Your task to perform on an android device: turn vacation reply on in the gmail app Image 0: 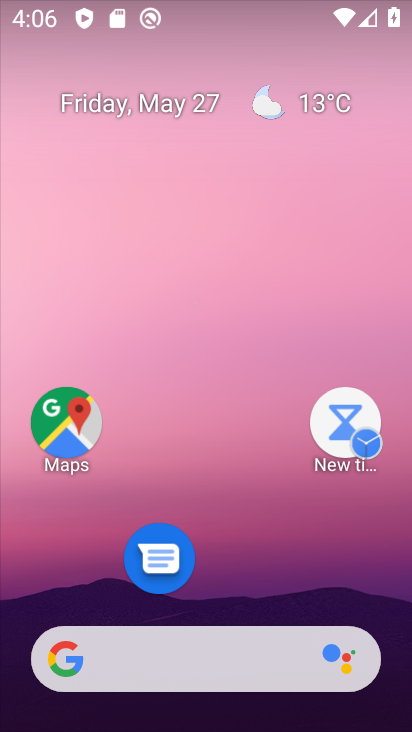
Step 0: drag from (108, 273) to (96, 188)
Your task to perform on an android device: turn vacation reply on in the gmail app Image 1: 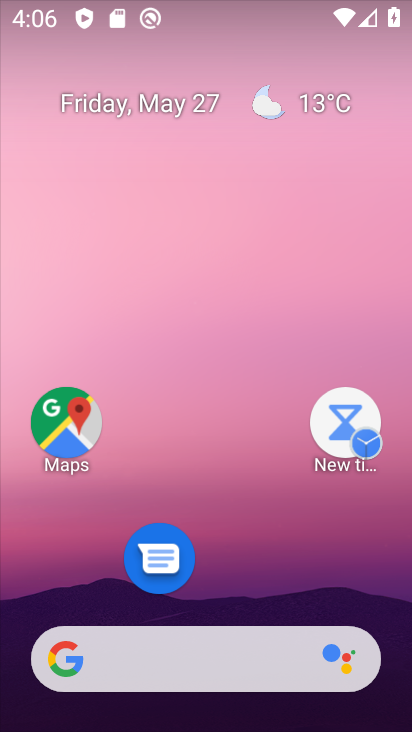
Step 1: drag from (240, 694) to (132, 134)
Your task to perform on an android device: turn vacation reply on in the gmail app Image 2: 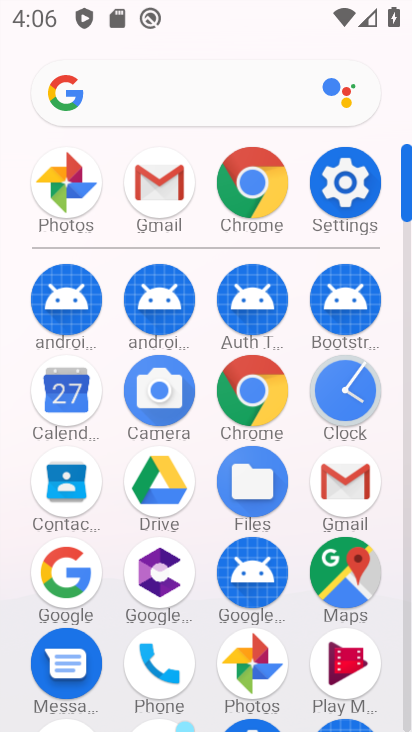
Step 2: drag from (219, 489) to (172, 185)
Your task to perform on an android device: turn vacation reply on in the gmail app Image 3: 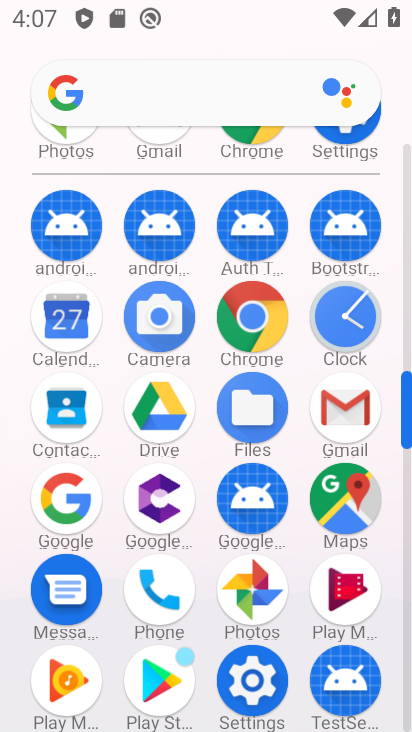
Step 3: click (158, 202)
Your task to perform on an android device: turn vacation reply on in the gmail app Image 4: 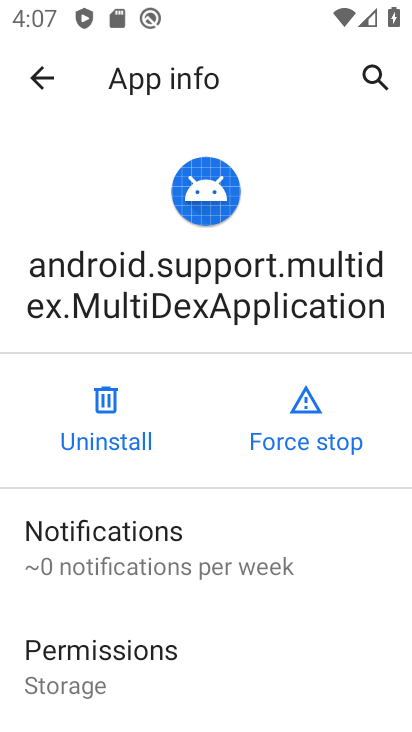
Step 4: drag from (160, 560) to (160, 140)
Your task to perform on an android device: turn vacation reply on in the gmail app Image 5: 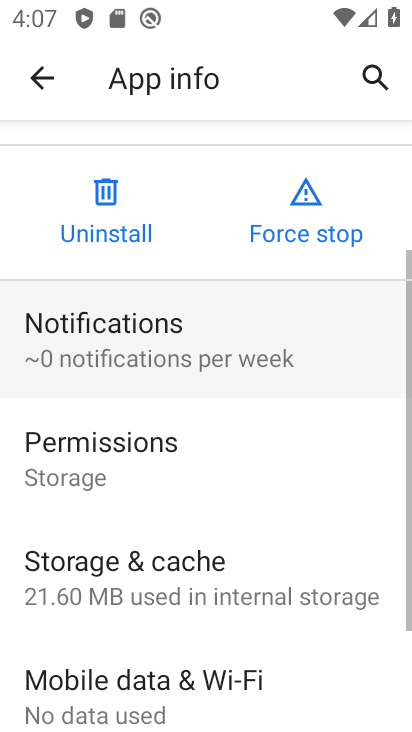
Step 5: drag from (175, 465) to (136, 149)
Your task to perform on an android device: turn vacation reply on in the gmail app Image 6: 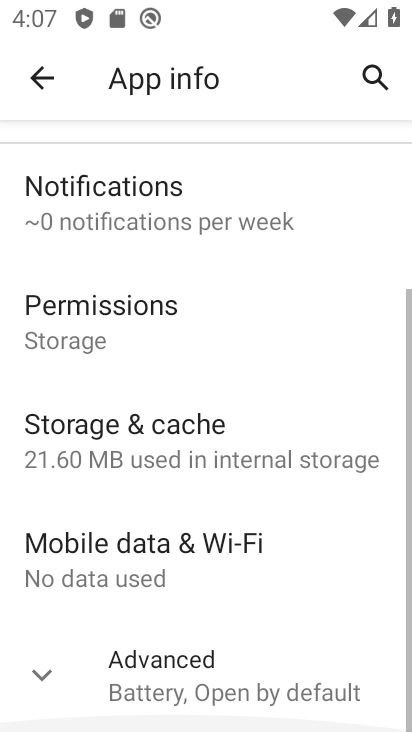
Step 6: drag from (152, 471) to (144, 122)
Your task to perform on an android device: turn vacation reply on in the gmail app Image 7: 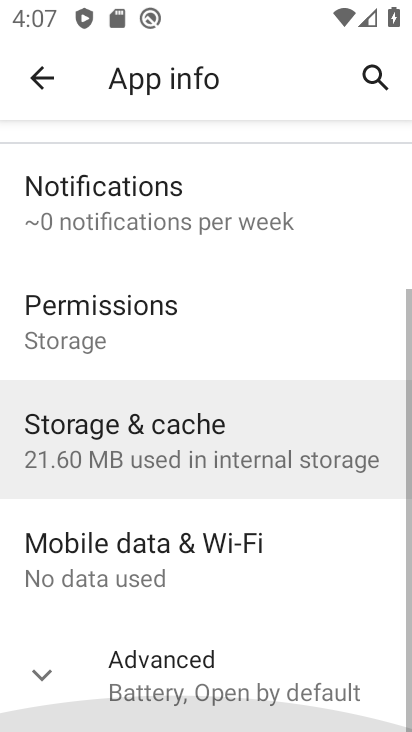
Step 7: drag from (213, 448) to (193, 86)
Your task to perform on an android device: turn vacation reply on in the gmail app Image 8: 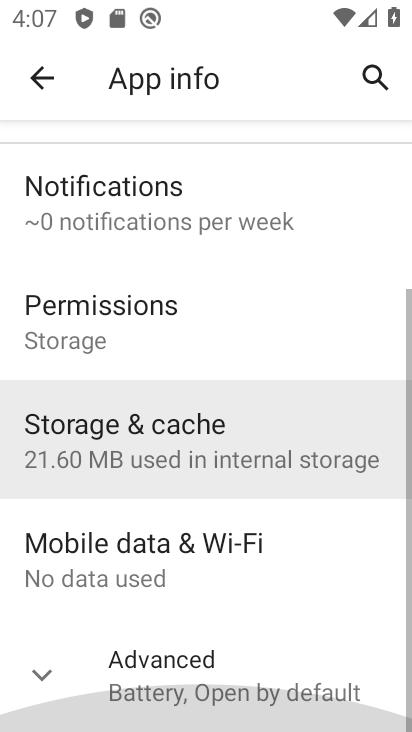
Step 8: drag from (143, 502) to (158, 250)
Your task to perform on an android device: turn vacation reply on in the gmail app Image 9: 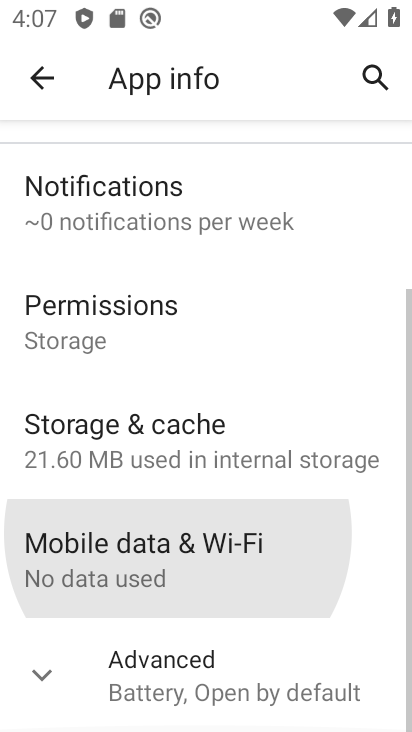
Step 9: drag from (163, 409) to (168, 69)
Your task to perform on an android device: turn vacation reply on in the gmail app Image 10: 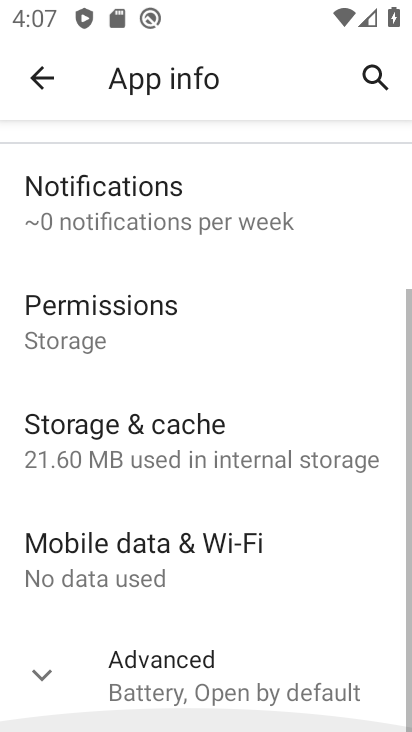
Step 10: drag from (157, 447) to (131, 21)
Your task to perform on an android device: turn vacation reply on in the gmail app Image 11: 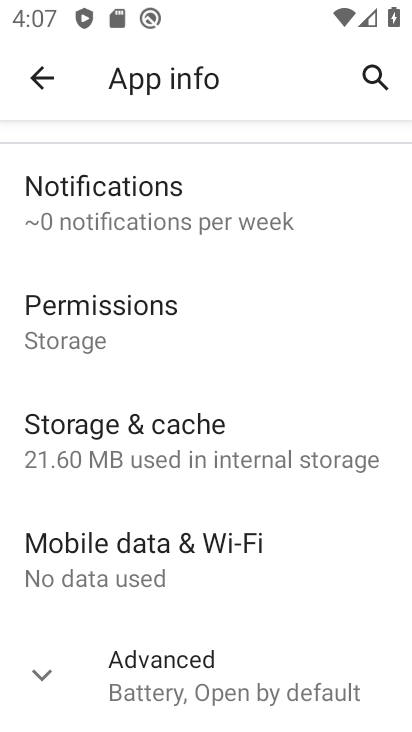
Step 11: drag from (126, 260) to (114, 140)
Your task to perform on an android device: turn vacation reply on in the gmail app Image 12: 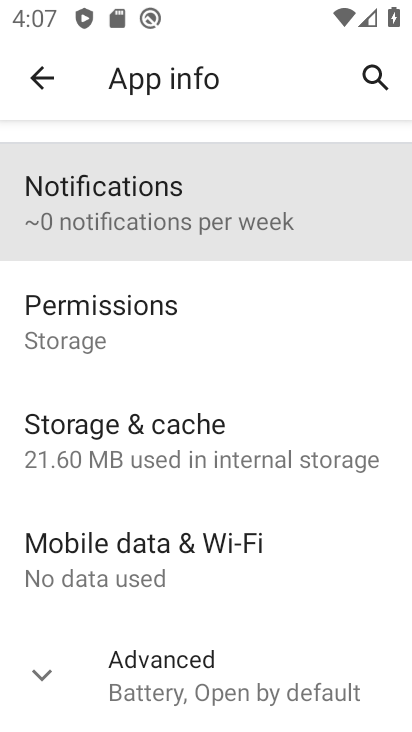
Step 12: drag from (166, 405) to (194, 20)
Your task to perform on an android device: turn vacation reply on in the gmail app Image 13: 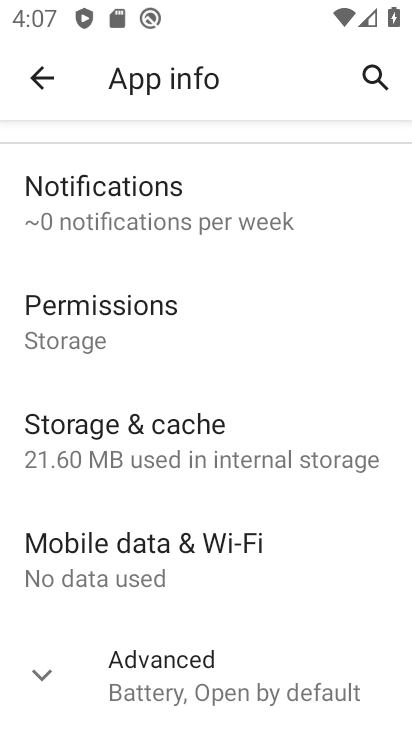
Step 13: drag from (250, 382) to (191, 30)
Your task to perform on an android device: turn vacation reply on in the gmail app Image 14: 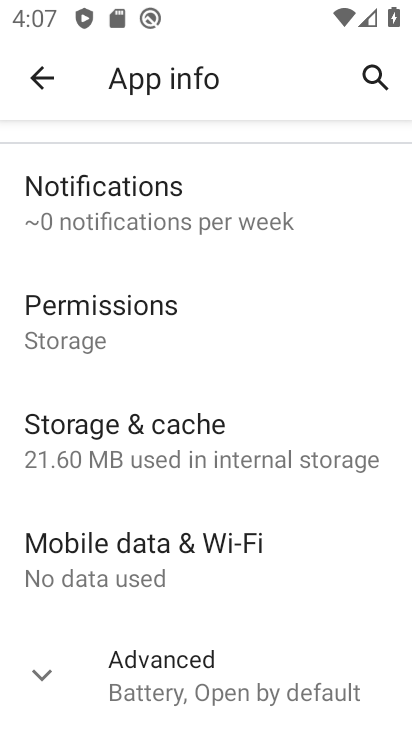
Step 14: drag from (142, 278) to (142, 86)
Your task to perform on an android device: turn vacation reply on in the gmail app Image 15: 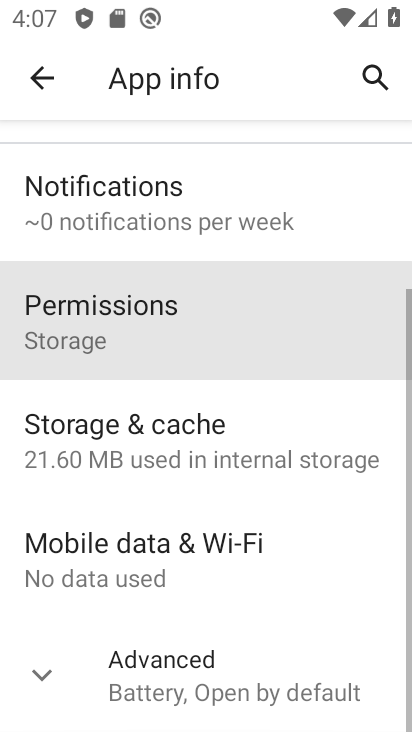
Step 15: drag from (173, 459) to (127, 157)
Your task to perform on an android device: turn vacation reply on in the gmail app Image 16: 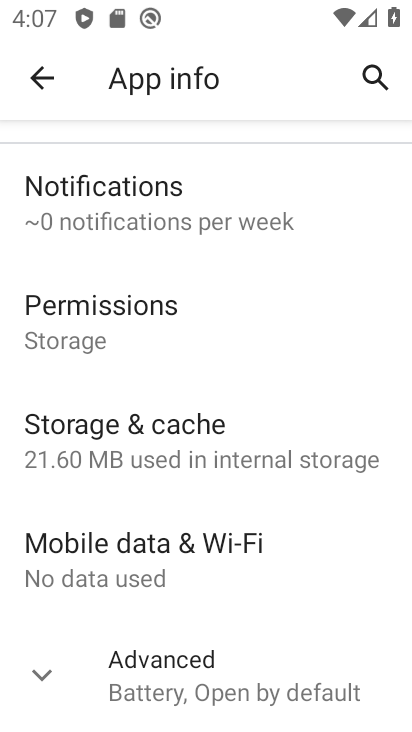
Step 16: press back button
Your task to perform on an android device: turn vacation reply on in the gmail app Image 17: 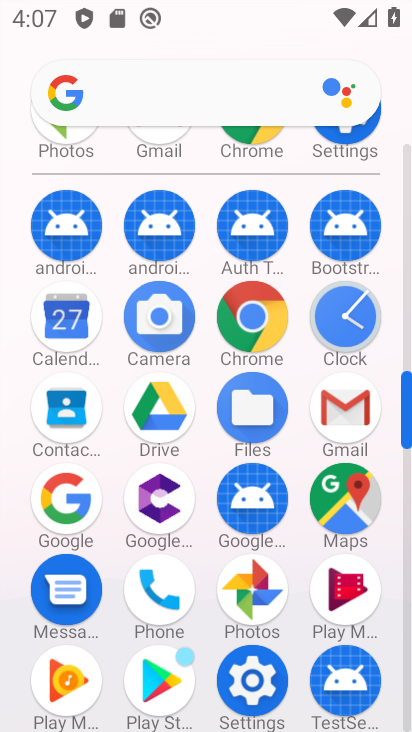
Step 17: click (344, 413)
Your task to perform on an android device: turn vacation reply on in the gmail app Image 18: 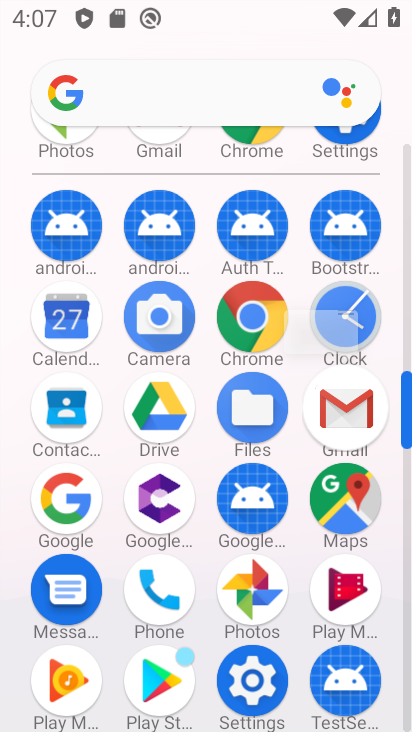
Step 18: click (344, 413)
Your task to perform on an android device: turn vacation reply on in the gmail app Image 19: 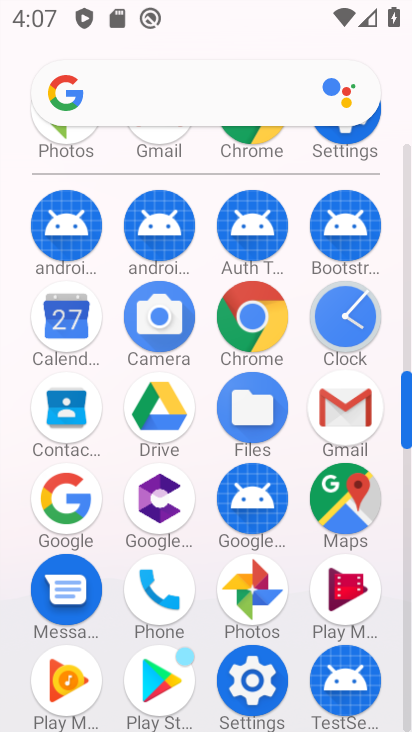
Step 19: click (344, 413)
Your task to perform on an android device: turn vacation reply on in the gmail app Image 20: 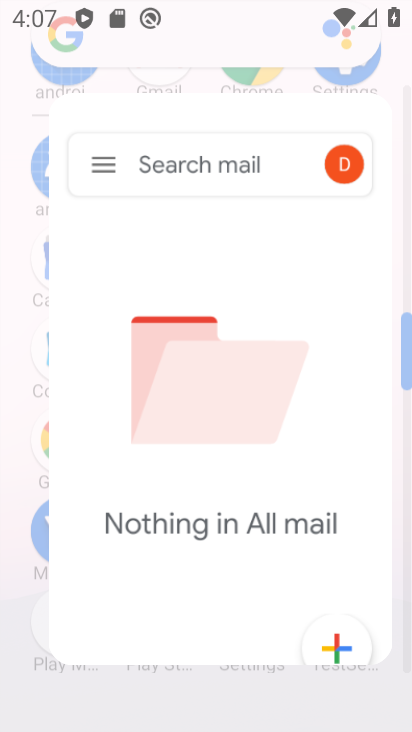
Step 20: click (344, 413)
Your task to perform on an android device: turn vacation reply on in the gmail app Image 21: 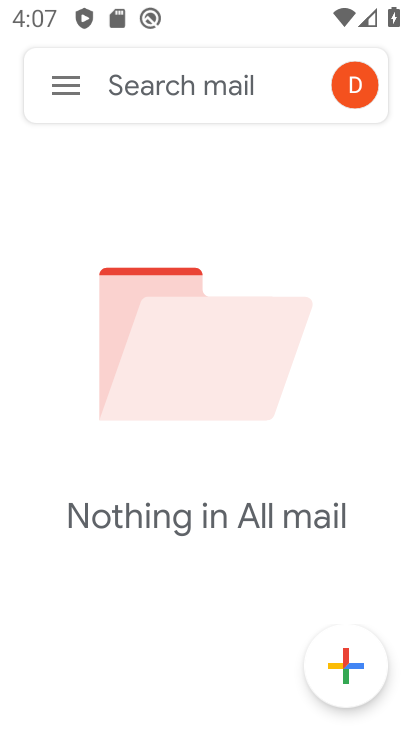
Step 21: click (73, 87)
Your task to perform on an android device: turn vacation reply on in the gmail app Image 22: 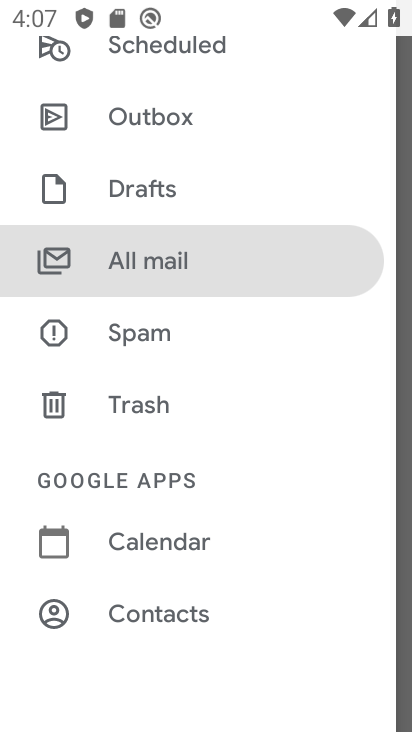
Step 22: drag from (160, 430) to (111, 159)
Your task to perform on an android device: turn vacation reply on in the gmail app Image 23: 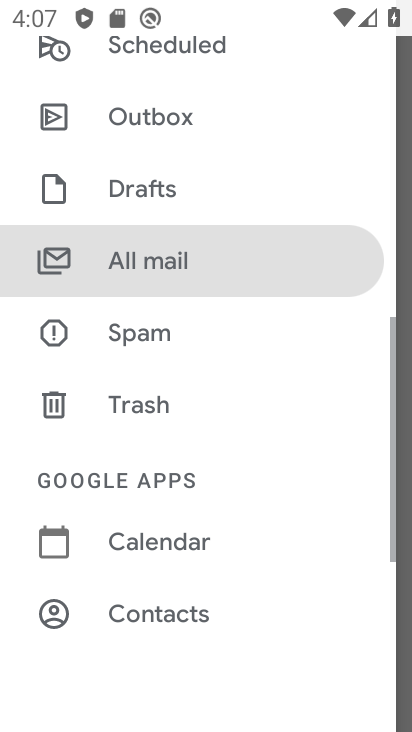
Step 23: drag from (184, 532) to (174, 80)
Your task to perform on an android device: turn vacation reply on in the gmail app Image 24: 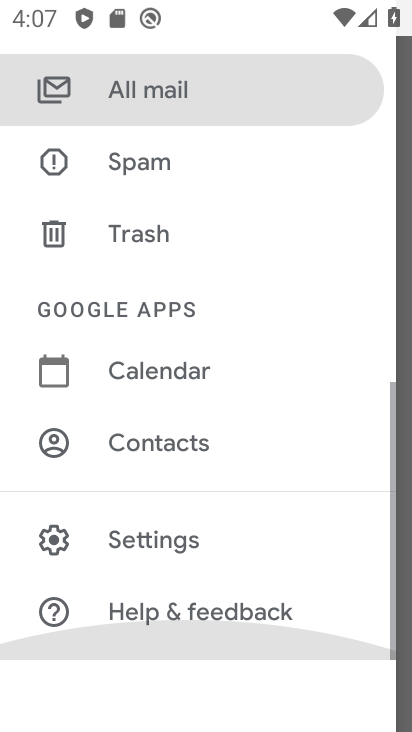
Step 24: drag from (153, 425) to (203, 153)
Your task to perform on an android device: turn vacation reply on in the gmail app Image 25: 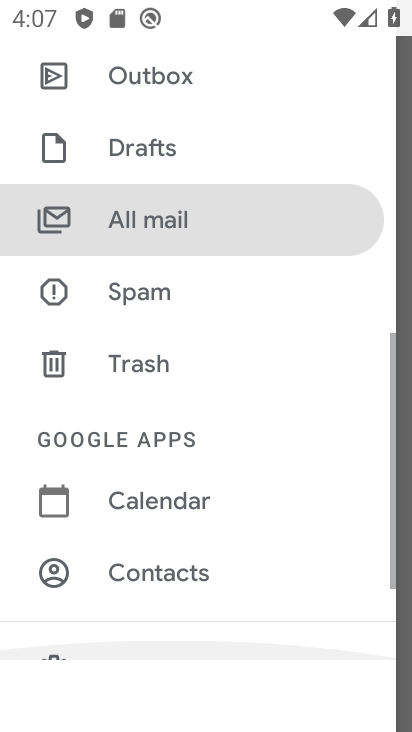
Step 25: drag from (185, 545) to (170, 227)
Your task to perform on an android device: turn vacation reply on in the gmail app Image 26: 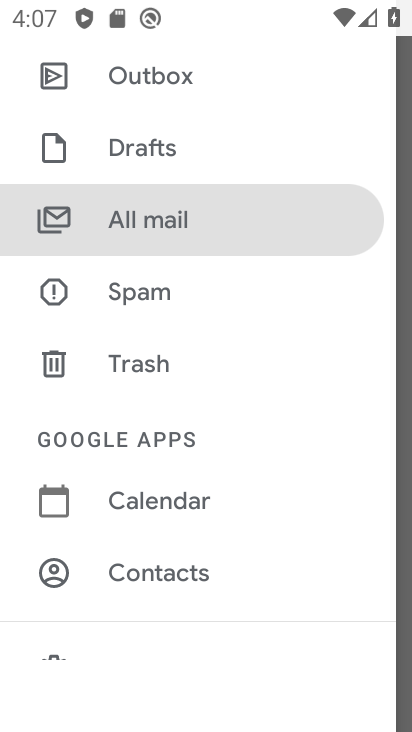
Step 26: drag from (171, 516) to (182, 108)
Your task to perform on an android device: turn vacation reply on in the gmail app Image 27: 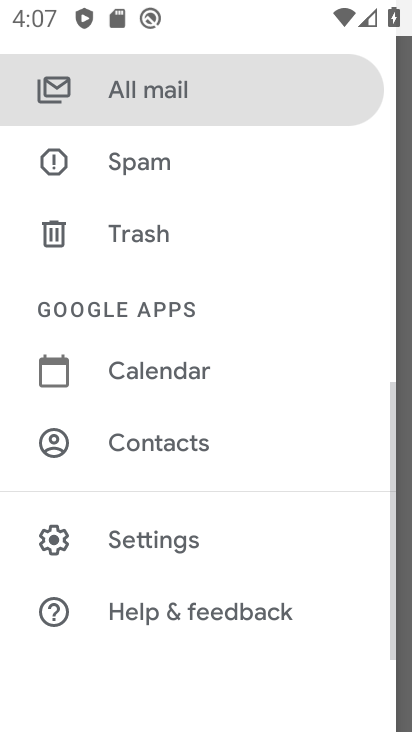
Step 27: click (148, 537)
Your task to perform on an android device: turn vacation reply on in the gmail app Image 28: 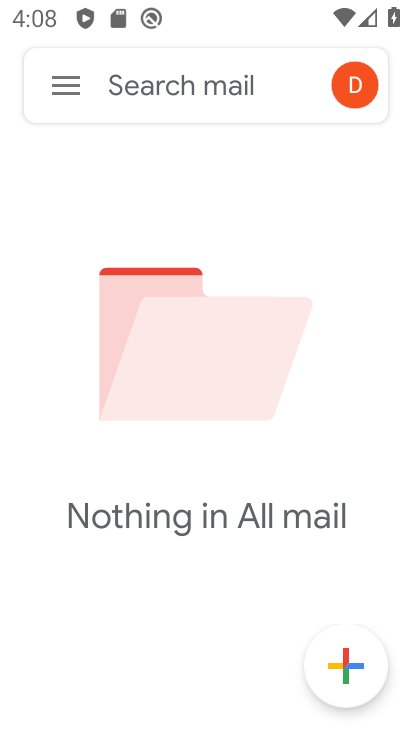
Step 28: click (141, 540)
Your task to perform on an android device: turn vacation reply on in the gmail app Image 29: 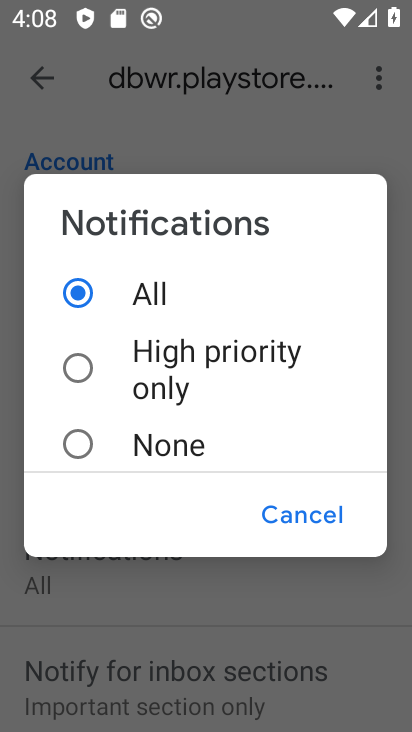
Step 29: drag from (128, 389) to (150, 242)
Your task to perform on an android device: turn vacation reply on in the gmail app Image 30: 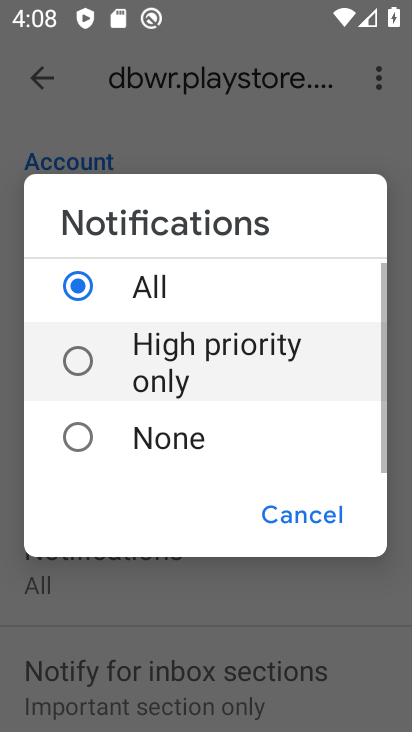
Step 30: click (322, 512)
Your task to perform on an android device: turn vacation reply on in the gmail app Image 31: 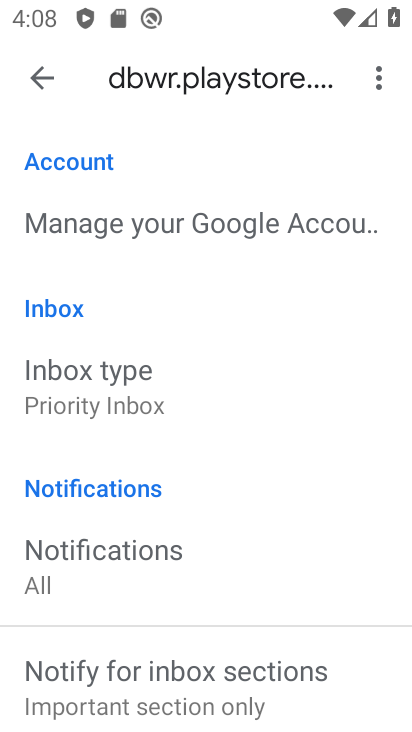
Step 31: drag from (193, 510) to (167, 190)
Your task to perform on an android device: turn vacation reply on in the gmail app Image 32: 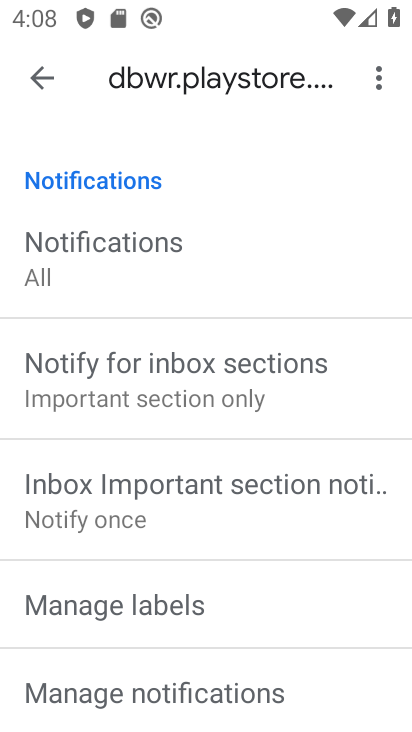
Step 32: drag from (181, 461) to (155, 64)
Your task to perform on an android device: turn vacation reply on in the gmail app Image 33: 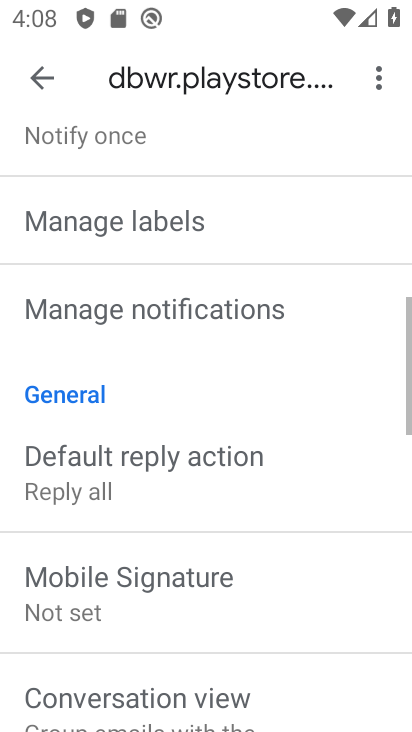
Step 33: drag from (170, 505) to (118, 136)
Your task to perform on an android device: turn vacation reply on in the gmail app Image 34: 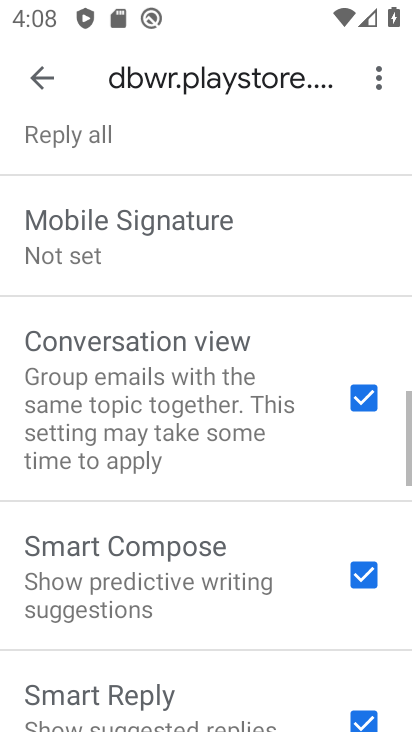
Step 34: drag from (154, 515) to (119, 222)
Your task to perform on an android device: turn vacation reply on in the gmail app Image 35: 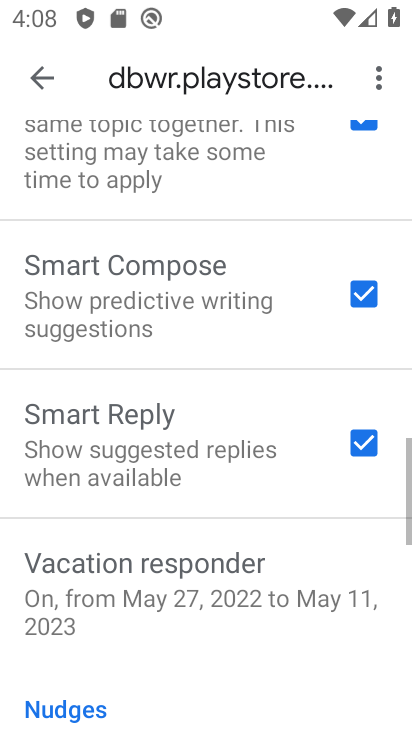
Step 35: drag from (170, 484) to (139, 157)
Your task to perform on an android device: turn vacation reply on in the gmail app Image 36: 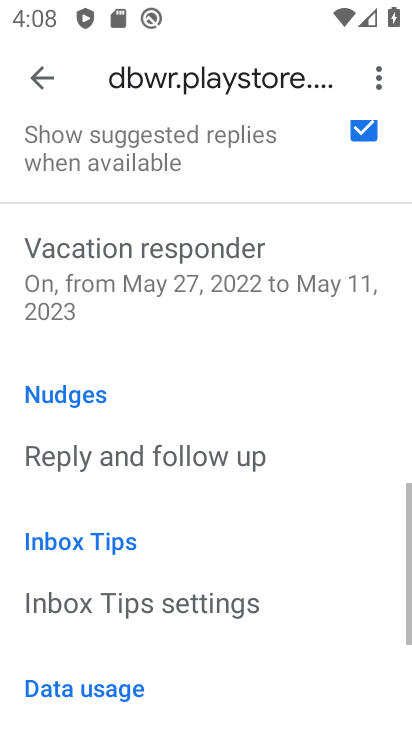
Step 36: click (141, 218)
Your task to perform on an android device: turn vacation reply on in the gmail app Image 37: 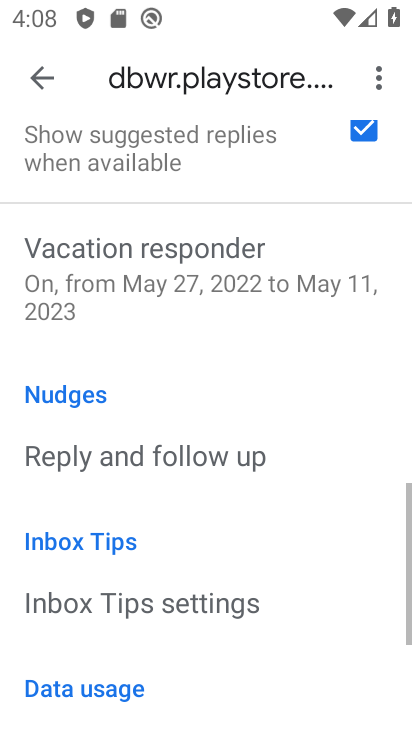
Step 37: click (98, 237)
Your task to perform on an android device: turn vacation reply on in the gmail app Image 38: 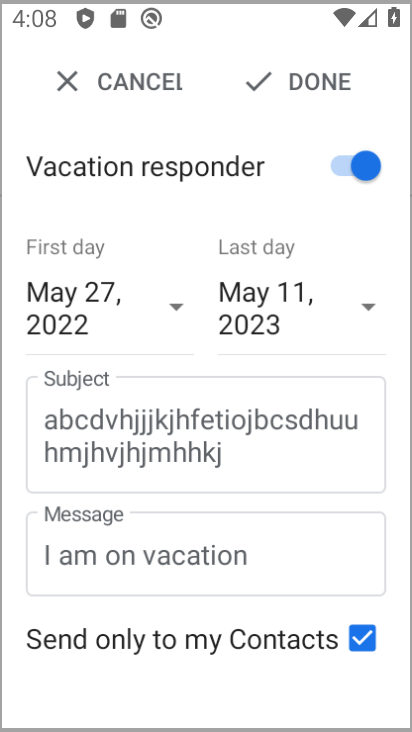
Step 38: drag from (198, 378) to (171, 234)
Your task to perform on an android device: turn vacation reply on in the gmail app Image 39: 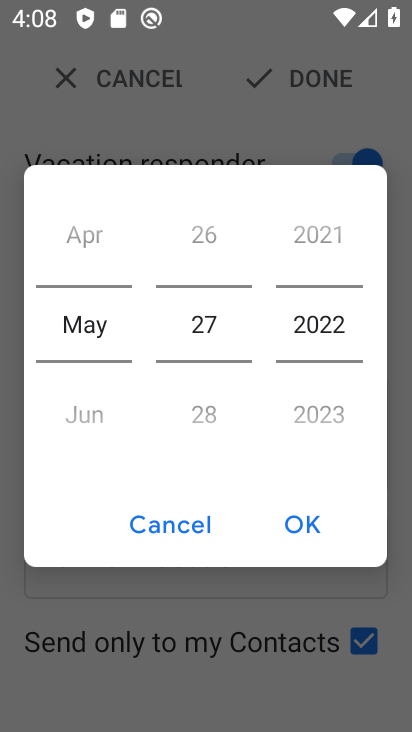
Step 39: drag from (199, 540) to (177, 292)
Your task to perform on an android device: turn vacation reply on in the gmail app Image 40: 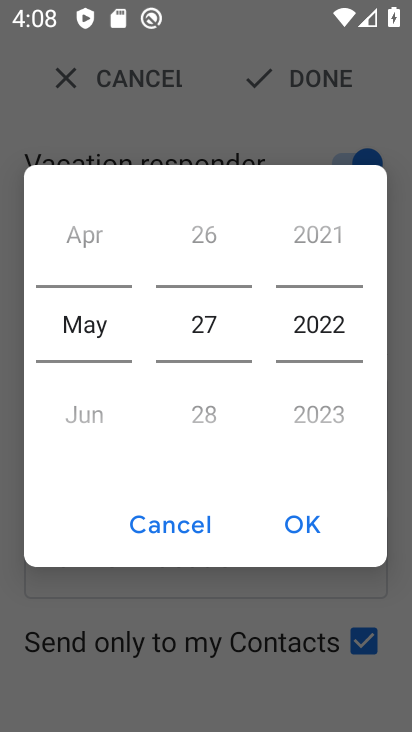
Step 40: click (305, 527)
Your task to perform on an android device: turn vacation reply on in the gmail app Image 41: 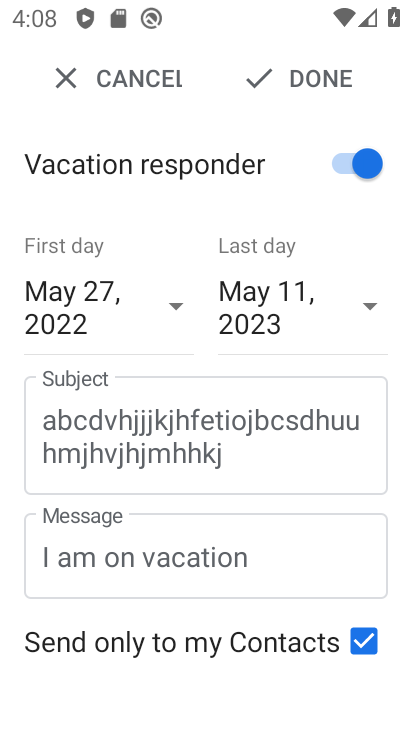
Step 41: task complete